Your task to perform on an android device: Open my contact list Image 0: 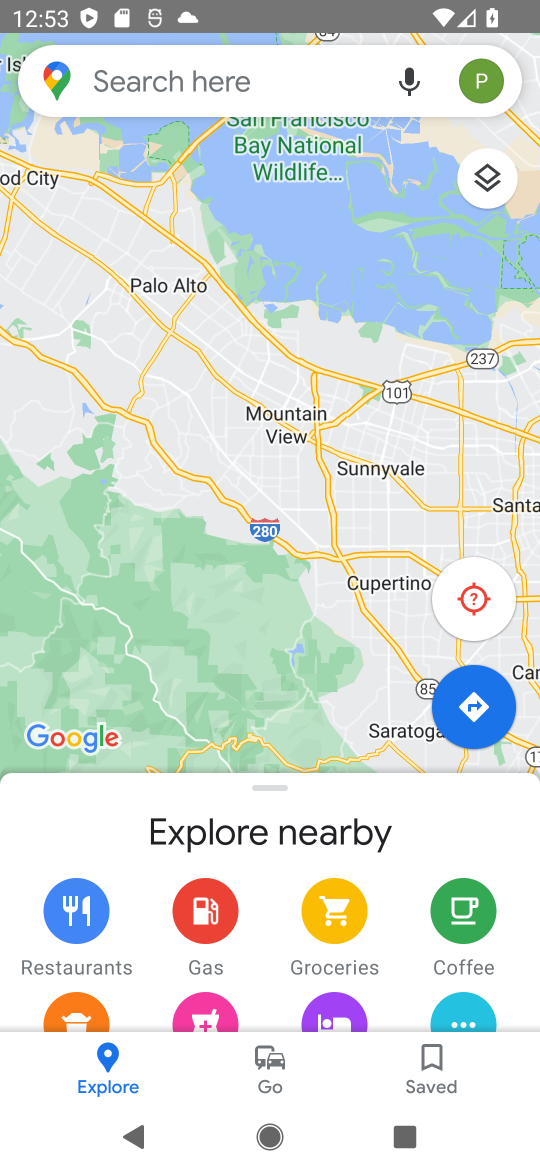
Step 0: press home button
Your task to perform on an android device: Open my contact list Image 1: 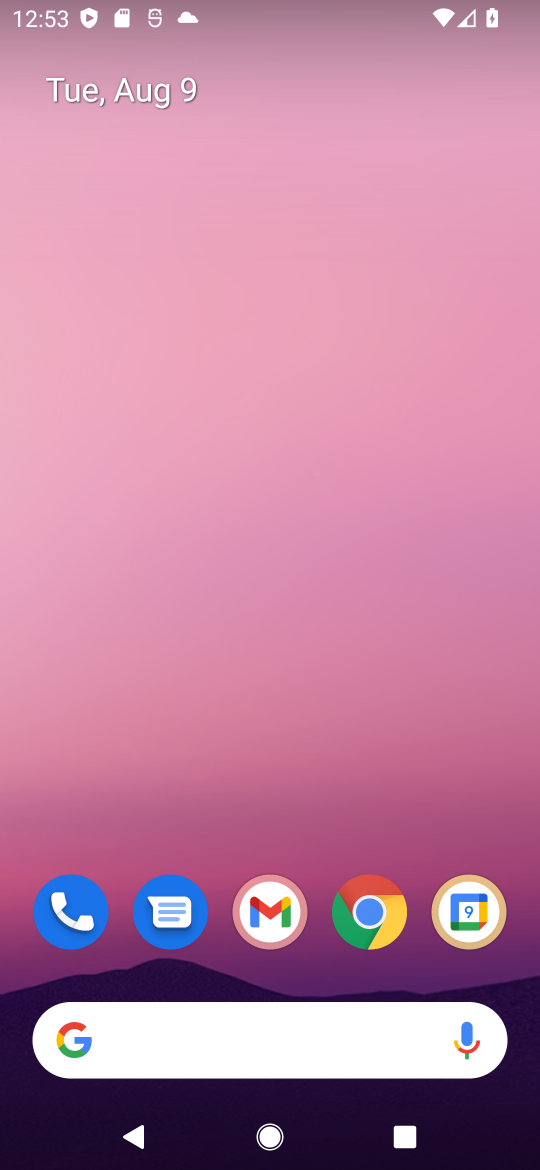
Step 1: drag from (230, 1005) to (334, 412)
Your task to perform on an android device: Open my contact list Image 2: 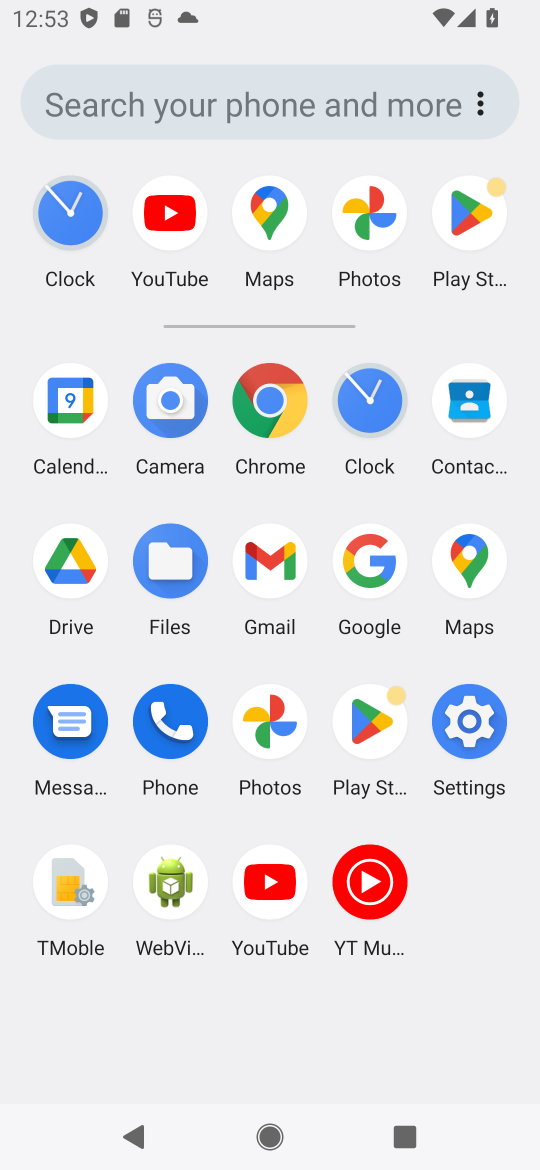
Step 2: click (181, 733)
Your task to perform on an android device: Open my contact list Image 3: 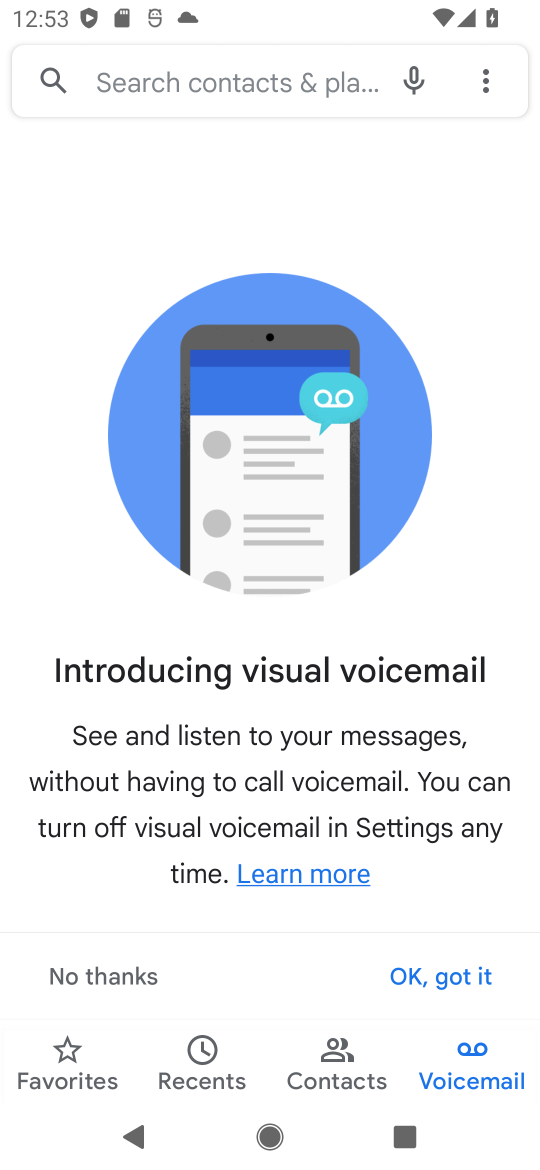
Step 3: click (327, 1080)
Your task to perform on an android device: Open my contact list Image 4: 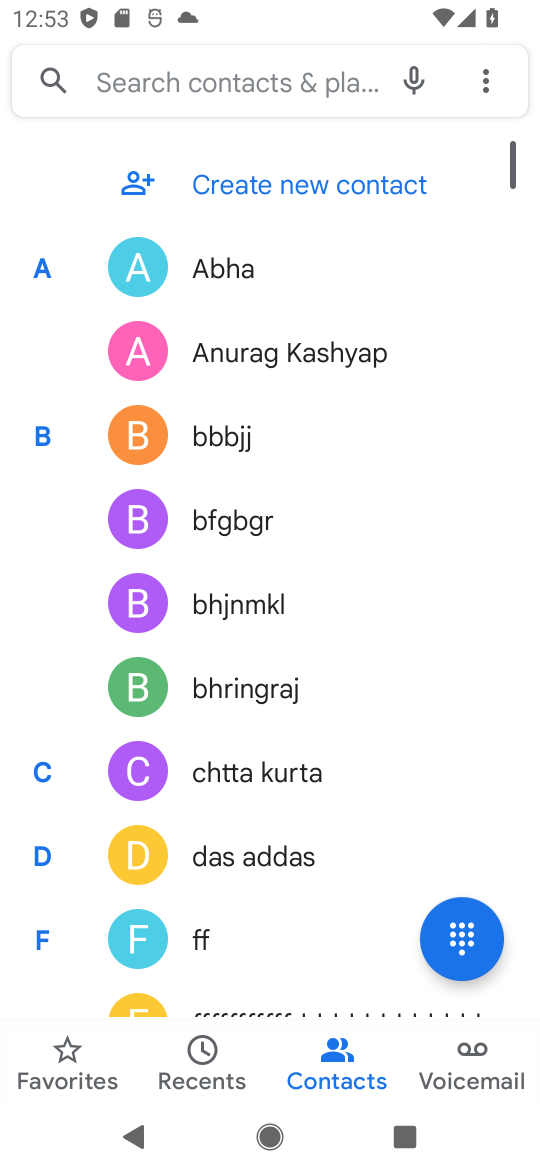
Step 4: task complete